Your task to perform on an android device: turn off airplane mode Image 0: 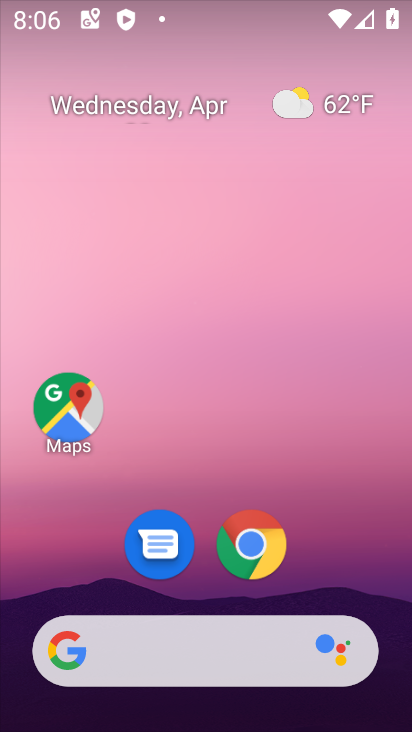
Step 0: drag from (320, 562) to (334, 161)
Your task to perform on an android device: turn off airplane mode Image 1: 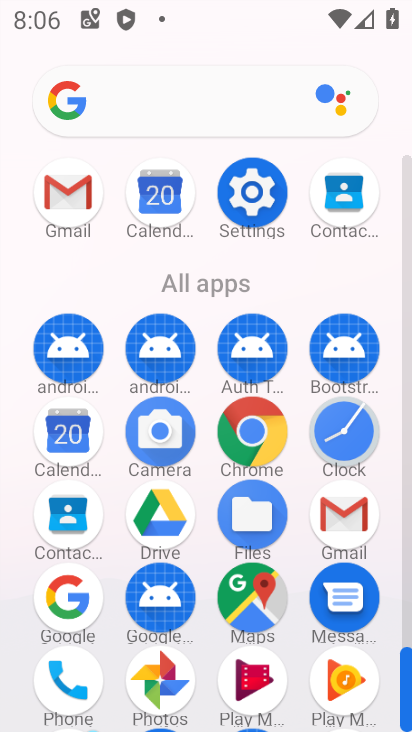
Step 1: click (258, 182)
Your task to perform on an android device: turn off airplane mode Image 2: 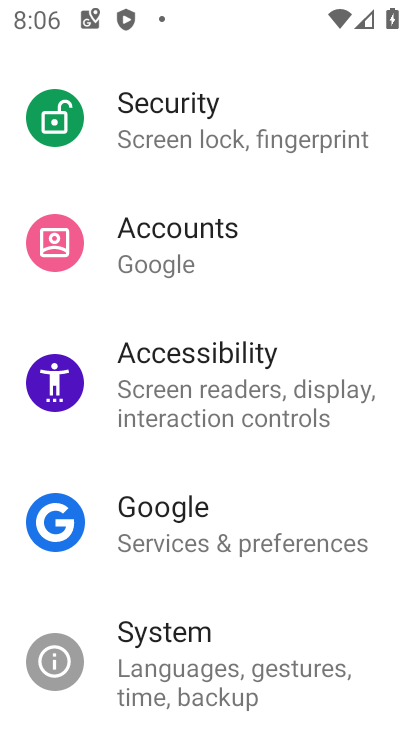
Step 2: drag from (252, 134) to (249, 622)
Your task to perform on an android device: turn off airplane mode Image 3: 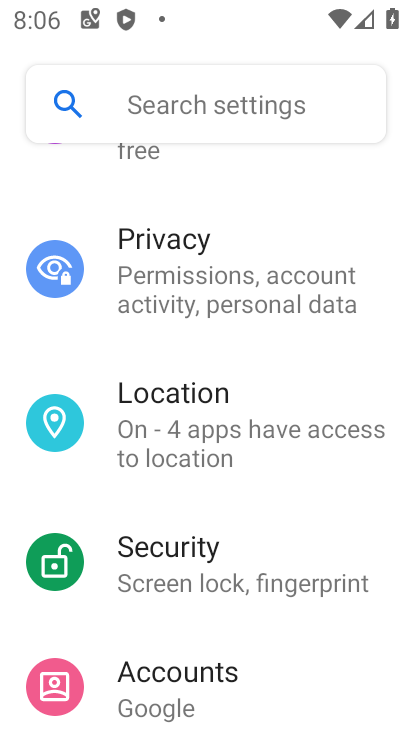
Step 3: drag from (366, 204) to (366, 629)
Your task to perform on an android device: turn off airplane mode Image 4: 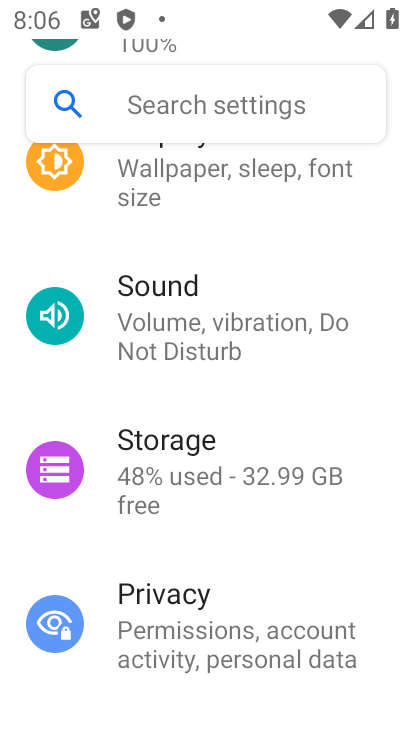
Step 4: drag from (334, 229) to (318, 602)
Your task to perform on an android device: turn off airplane mode Image 5: 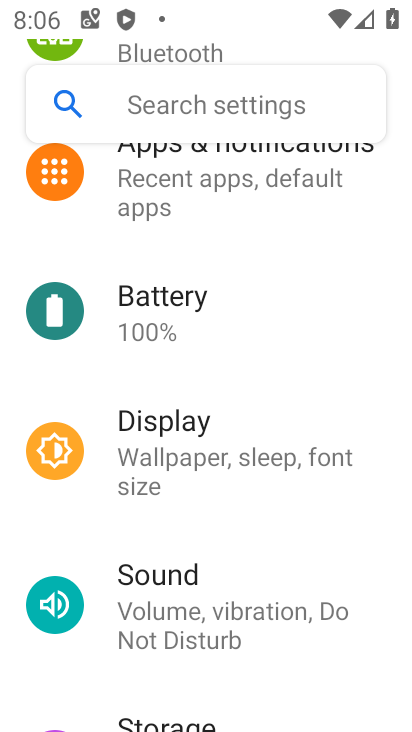
Step 5: drag from (328, 306) to (286, 622)
Your task to perform on an android device: turn off airplane mode Image 6: 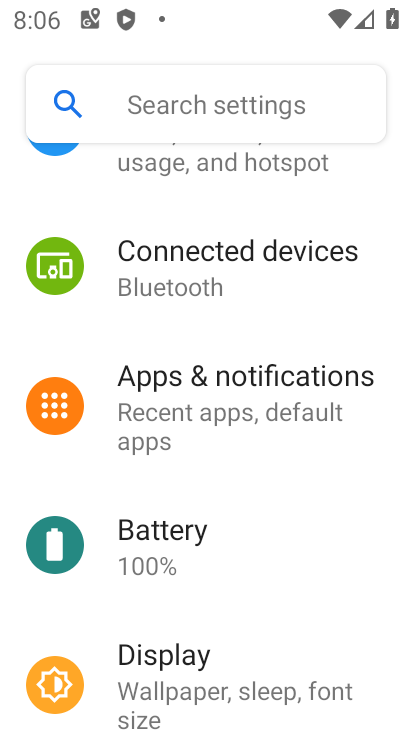
Step 6: drag from (357, 207) to (347, 467)
Your task to perform on an android device: turn off airplane mode Image 7: 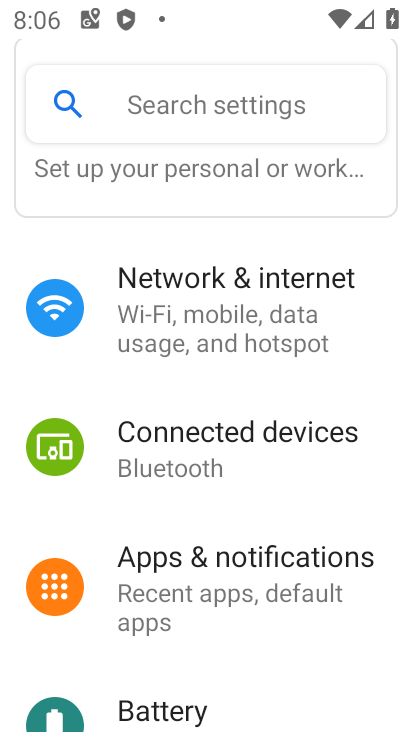
Step 7: click (228, 313)
Your task to perform on an android device: turn off airplane mode Image 8: 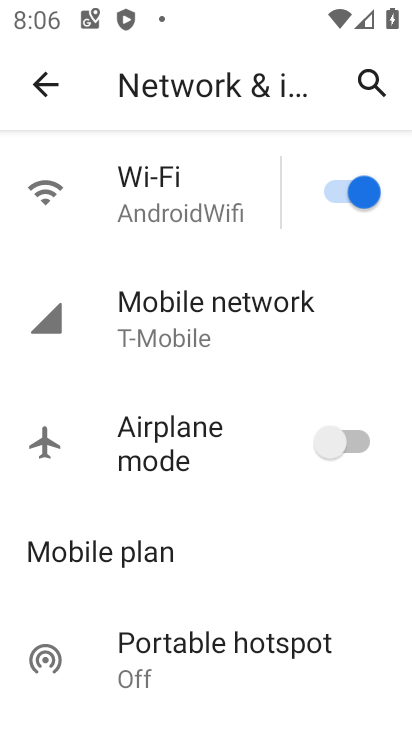
Step 8: task complete